Your task to perform on an android device: delete browsing data in the chrome app Image 0: 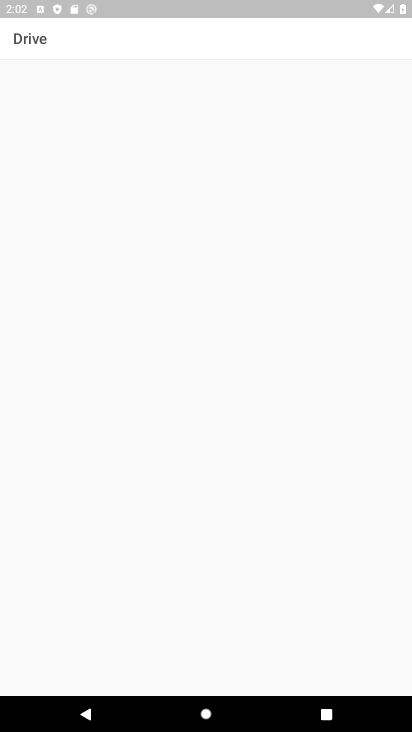
Step 0: press home button
Your task to perform on an android device: delete browsing data in the chrome app Image 1: 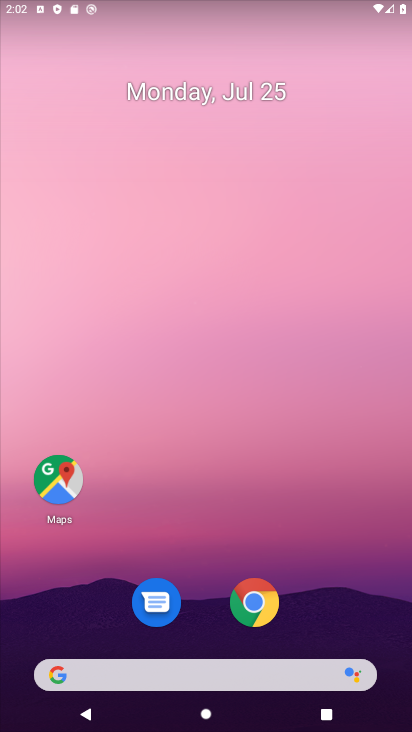
Step 1: click (261, 610)
Your task to perform on an android device: delete browsing data in the chrome app Image 2: 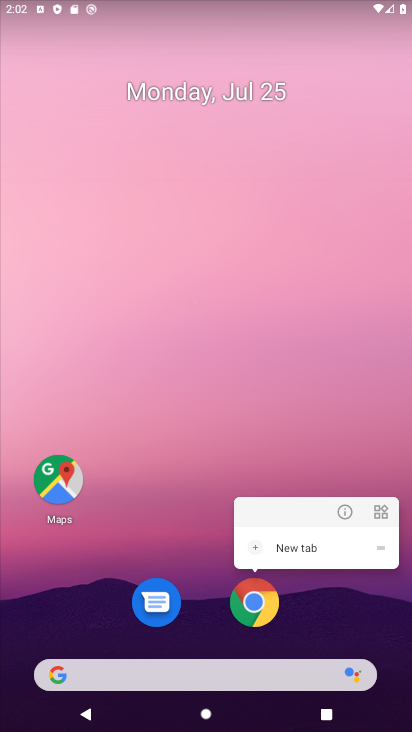
Step 2: click (261, 610)
Your task to perform on an android device: delete browsing data in the chrome app Image 3: 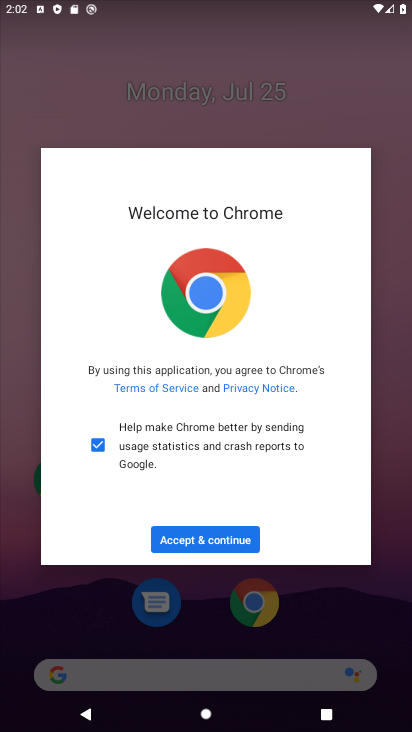
Step 3: click (220, 540)
Your task to perform on an android device: delete browsing data in the chrome app Image 4: 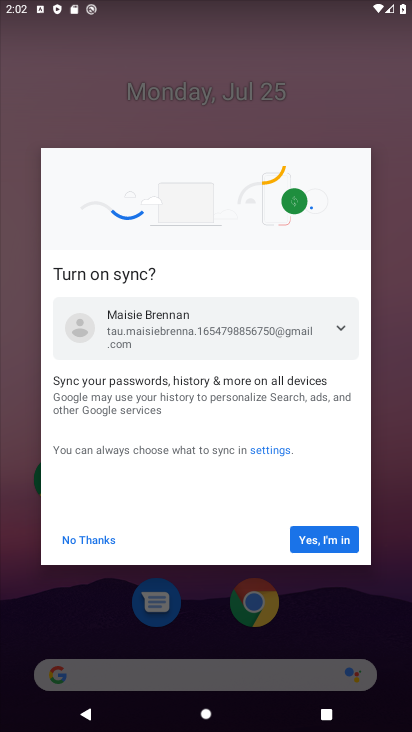
Step 4: click (318, 544)
Your task to perform on an android device: delete browsing data in the chrome app Image 5: 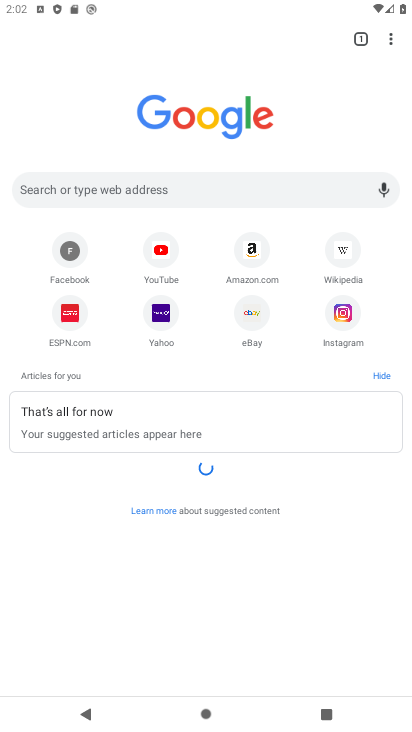
Step 5: click (390, 31)
Your task to perform on an android device: delete browsing data in the chrome app Image 6: 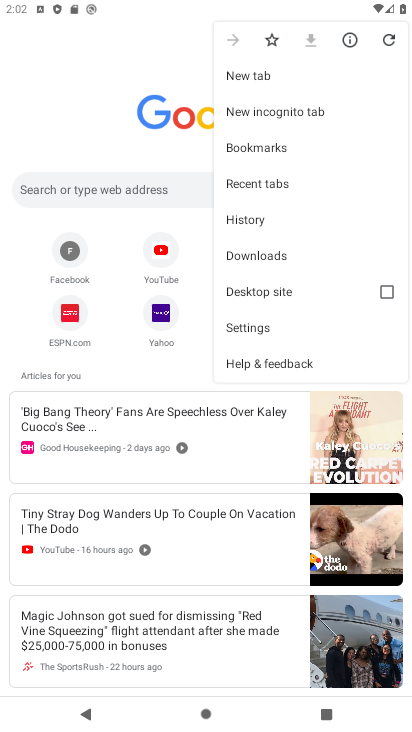
Step 6: click (270, 207)
Your task to perform on an android device: delete browsing data in the chrome app Image 7: 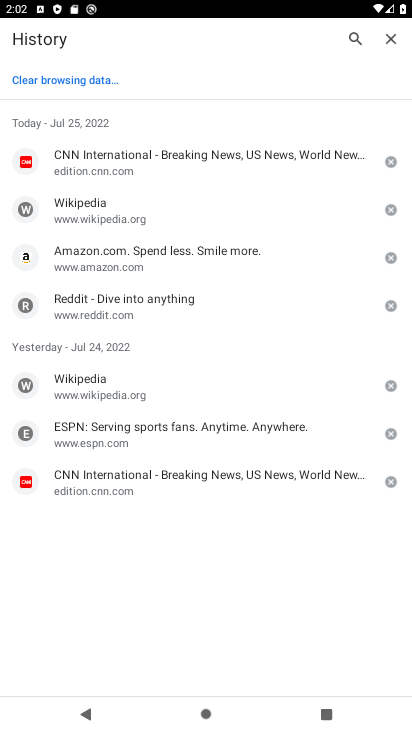
Step 7: click (82, 78)
Your task to perform on an android device: delete browsing data in the chrome app Image 8: 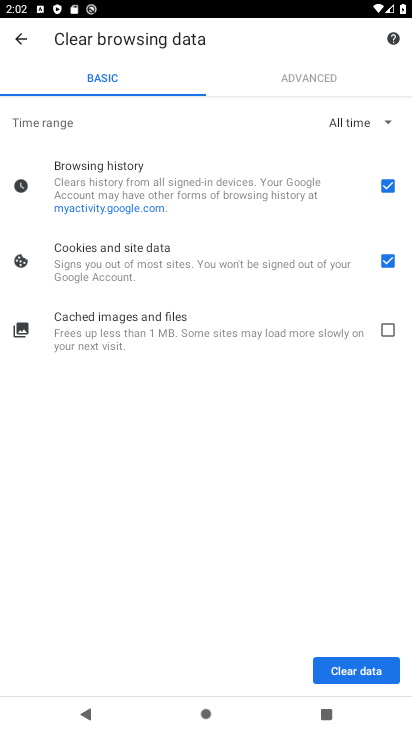
Step 8: click (356, 673)
Your task to perform on an android device: delete browsing data in the chrome app Image 9: 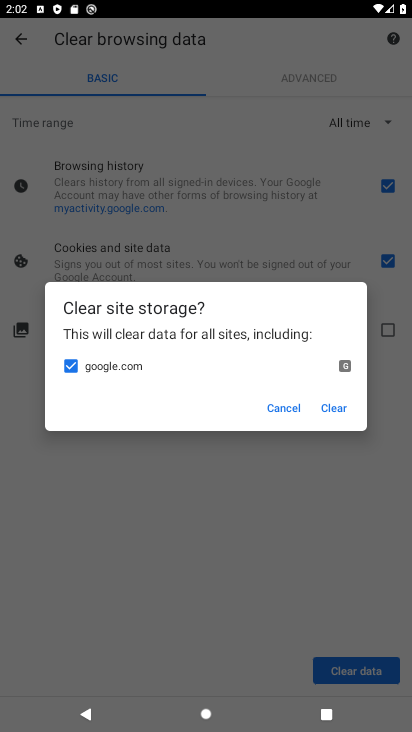
Step 9: click (337, 408)
Your task to perform on an android device: delete browsing data in the chrome app Image 10: 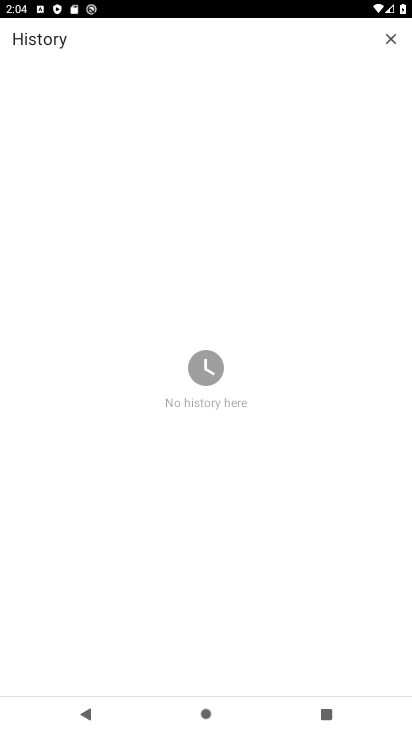
Step 10: task complete